Your task to perform on an android device: toggle pop-ups in chrome Image 0: 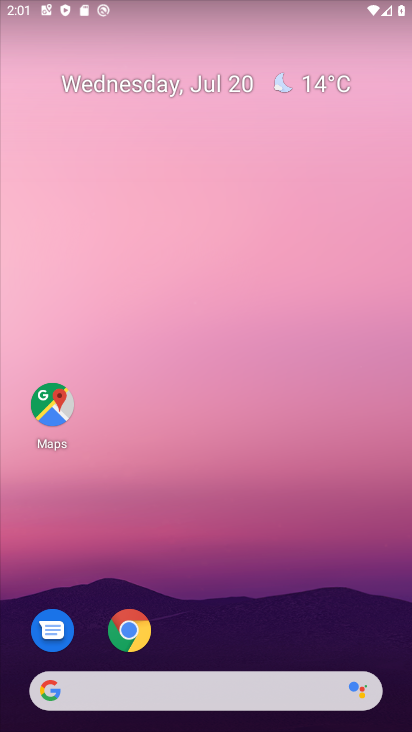
Step 0: click (133, 636)
Your task to perform on an android device: toggle pop-ups in chrome Image 1: 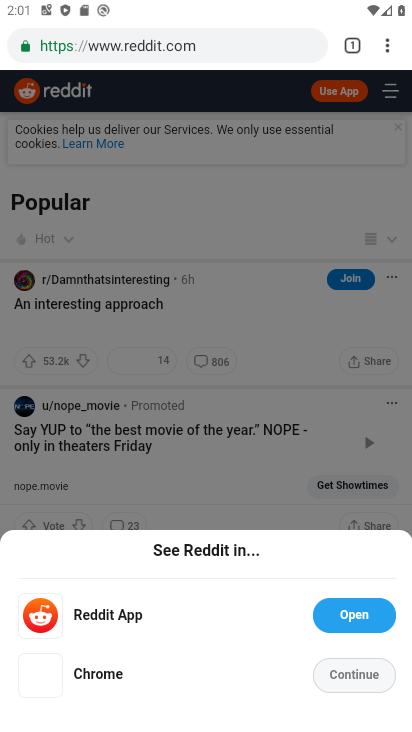
Step 1: click (388, 53)
Your task to perform on an android device: toggle pop-ups in chrome Image 2: 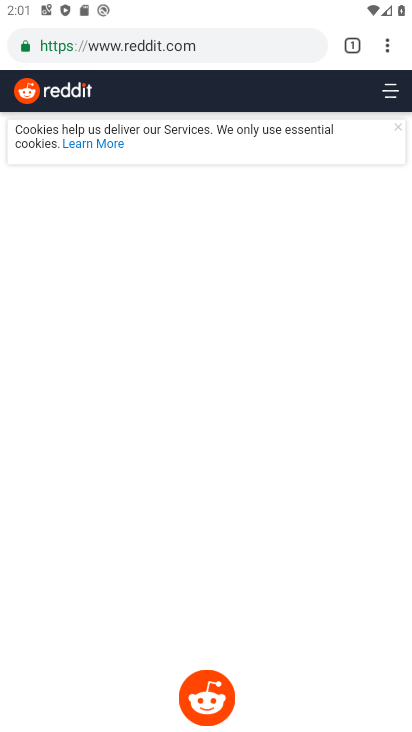
Step 2: click (395, 43)
Your task to perform on an android device: toggle pop-ups in chrome Image 3: 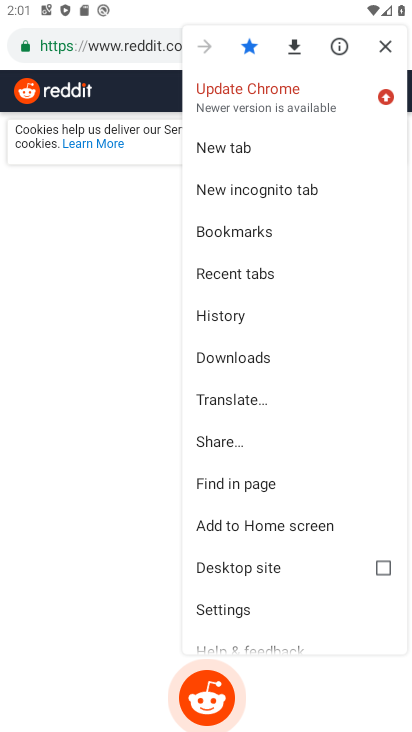
Step 3: click (256, 611)
Your task to perform on an android device: toggle pop-ups in chrome Image 4: 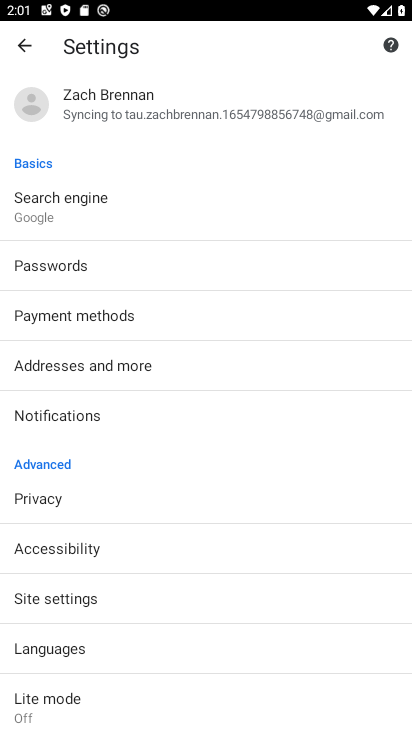
Step 4: click (85, 588)
Your task to perform on an android device: toggle pop-ups in chrome Image 5: 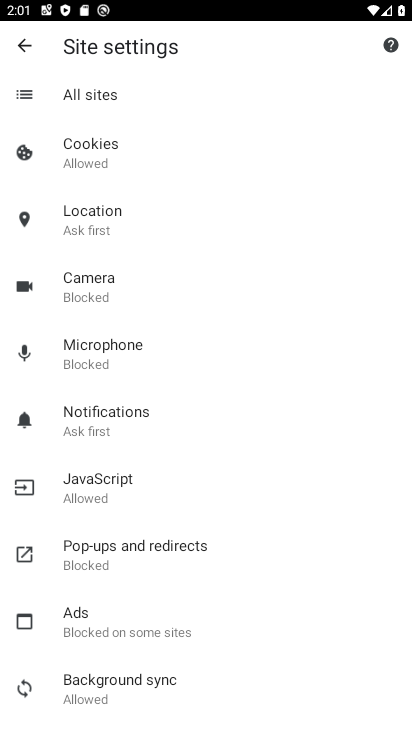
Step 5: click (119, 546)
Your task to perform on an android device: toggle pop-ups in chrome Image 6: 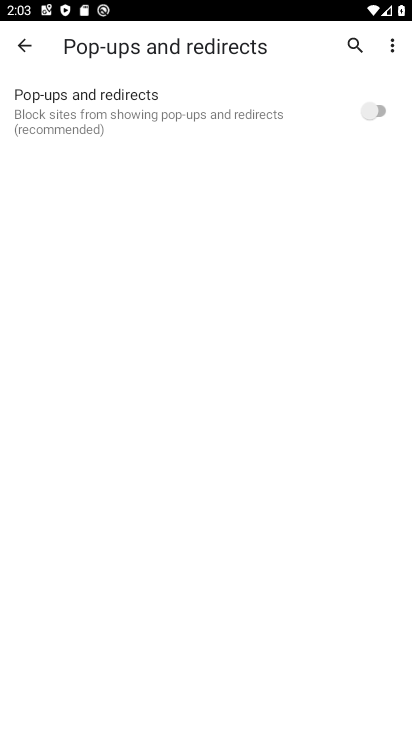
Step 6: task complete